Your task to perform on an android device: change your default location settings in chrome Image 0: 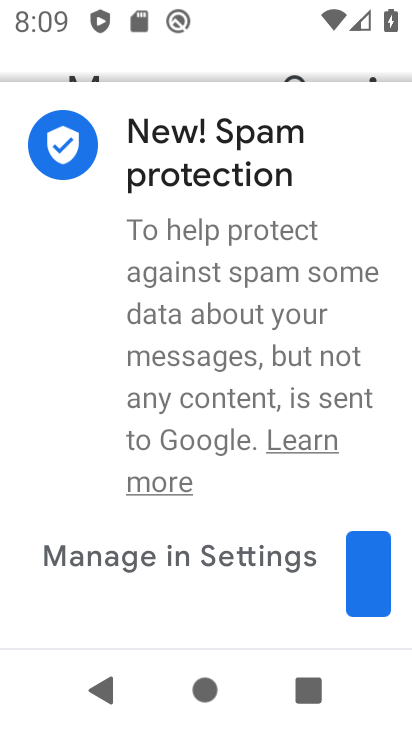
Step 0: press home button
Your task to perform on an android device: change your default location settings in chrome Image 1: 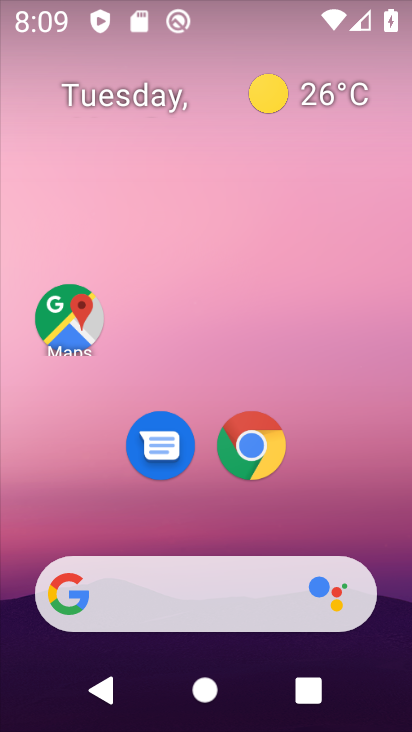
Step 1: click (252, 444)
Your task to perform on an android device: change your default location settings in chrome Image 2: 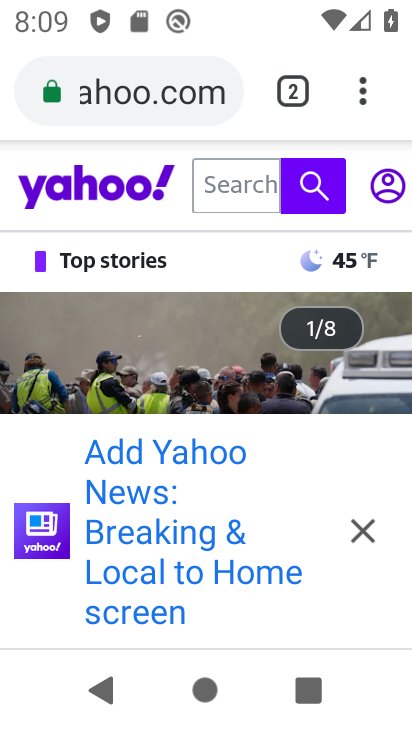
Step 2: click (368, 89)
Your task to perform on an android device: change your default location settings in chrome Image 3: 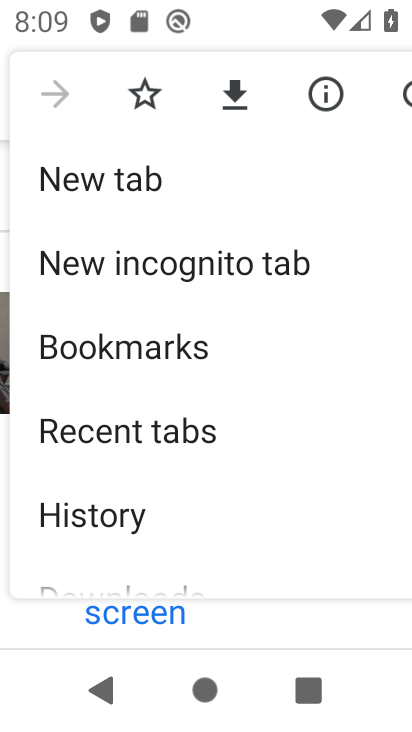
Step 3: drag from (141, 455) to (194, 370)
Your task to perform on an android device: change your default location settings in chrome Image 4: 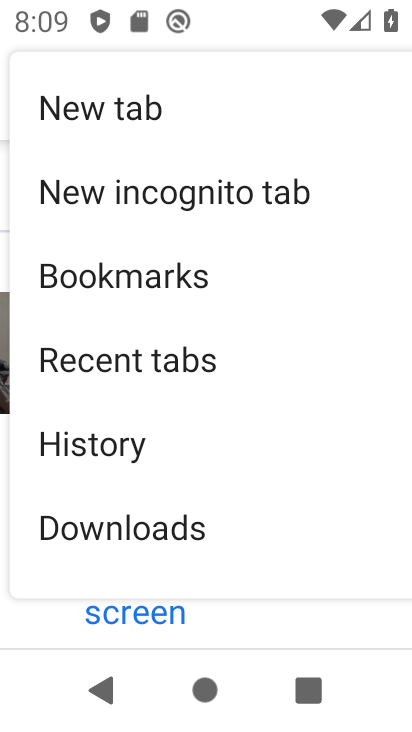
Step 4: drag from (130, 473) to (195, 379)
Your task to perform on an android device: change your default location settings in chrome Image 5: 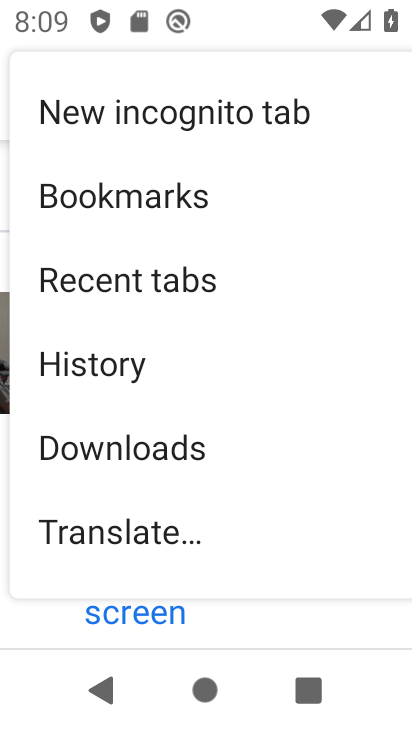
Step 5: drag from (118, 474) to (187, 391)
Your task to perform on an android device: change your default location settings in chrome Image 6: 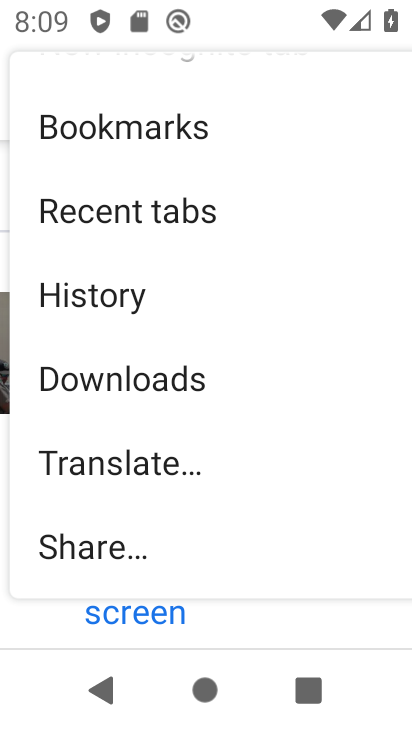
Step 6: drag from (95, 494) to (178, 403)
Your task to perform on an android device: change your default location settings in chrome Image 7: 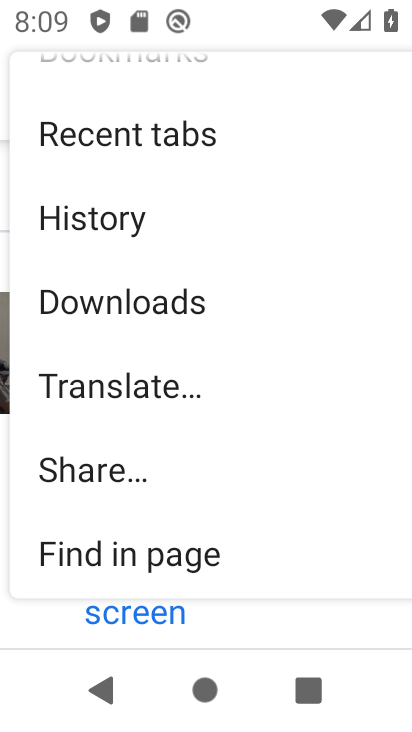
Step 7: drag from (73, 501) to (145, 417)
Your task to perform on an android device: change your default location settings in chrome Image 8: 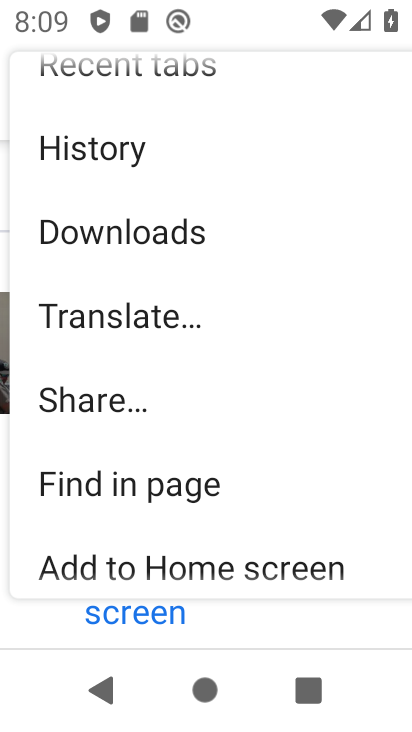
Step 8: drag from (82, 511) to (189, 396)
Your task to perform on an android device: change your default location settings in chrome Image 9: 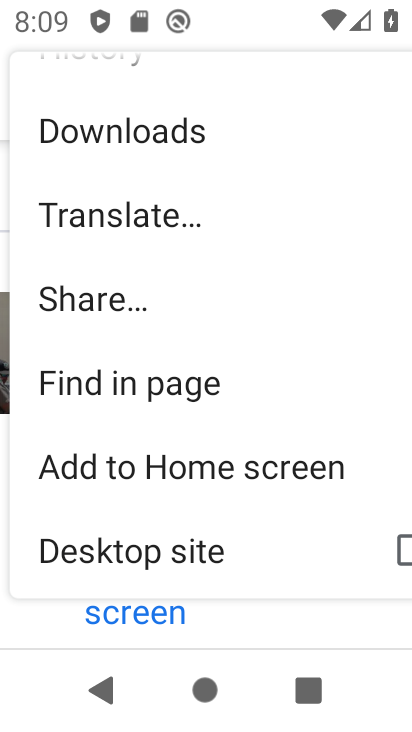
Step 9: drag from (94, 504) to (200, 400)
Your task to perform on an android device: change your default location settings in chrome Image 10: 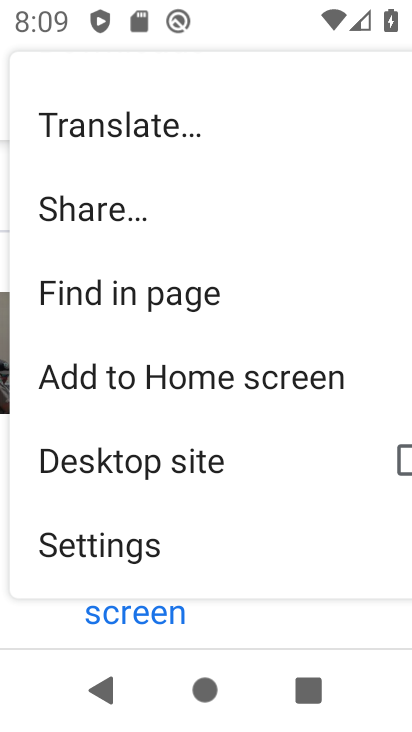
Step 10: drag from (88, 497) to (196, 385)
Your task to perform on an android device: change your default location settings in chrome Image 11: 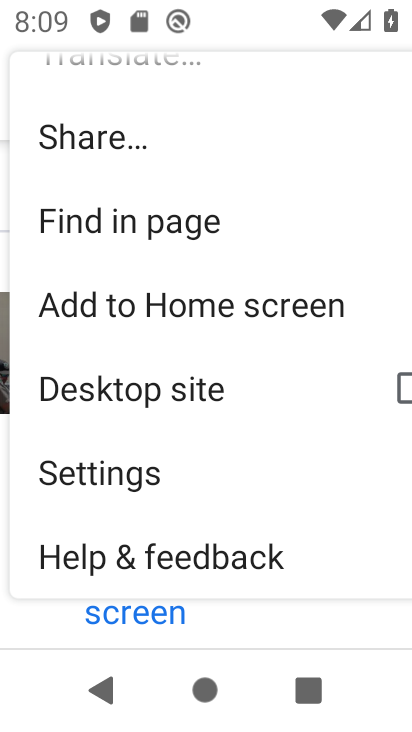
Step 11: click (107, 473)
Your task to perform on an android device: change your default location settings in chrome Image 12: 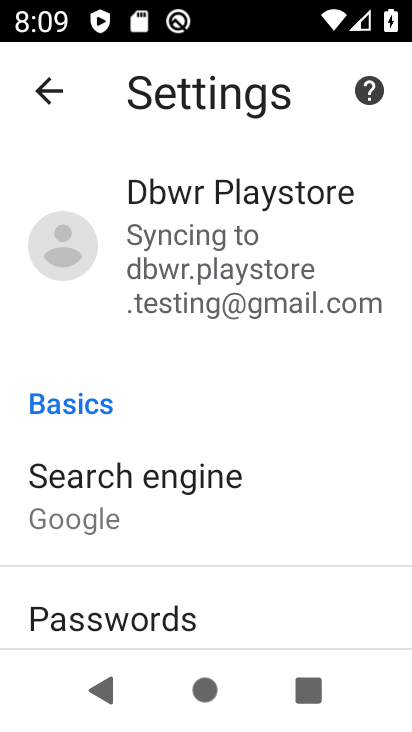
Step 12: drag from (200, 543) to (279, 439)
Your task to perform on an android device: change your default location settings in chrome Image 13: 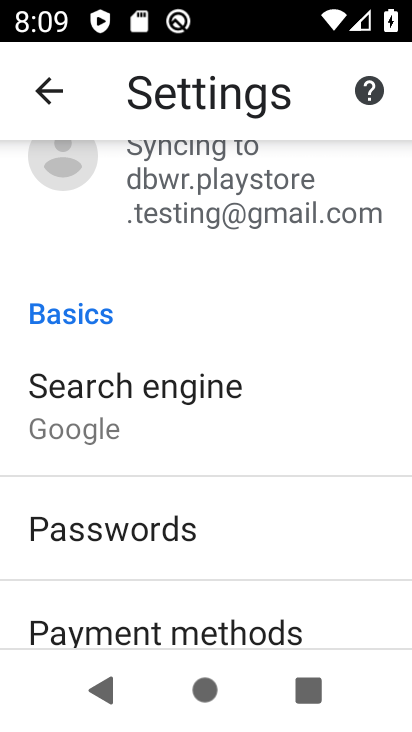
Step 13: drag from (152, 556) to (276, 431)
Your task to perform on an android device: change your default location settings in chrome Image 14: 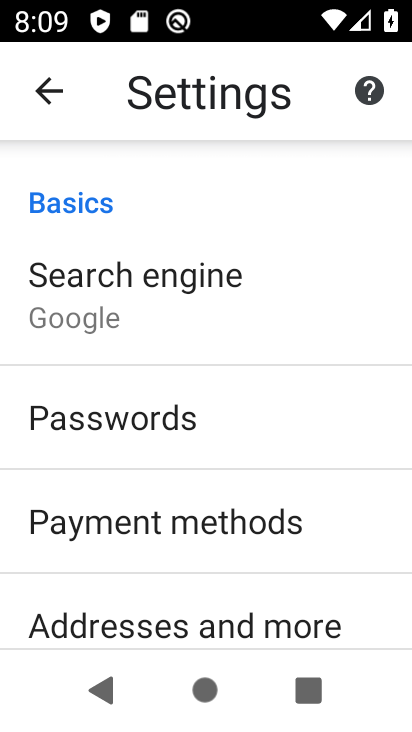
Step 14: drag from (154, 544) to (259, 426)
Your task to perform on an android device: change your default location settings in chrome Image 15: 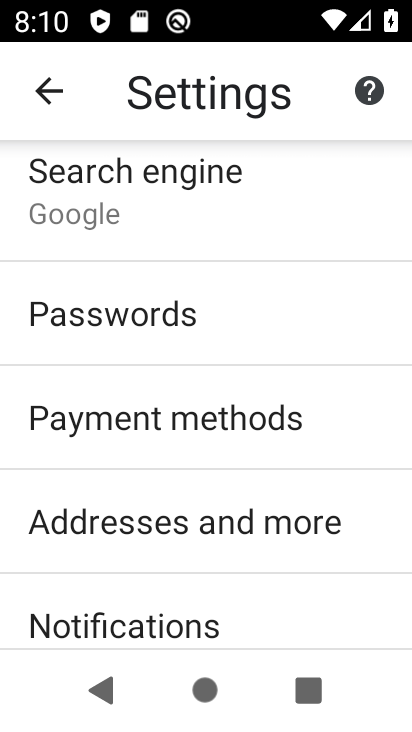
Step 15: drag from (156, 547) to (252, 447)
Your task to perform on an android device: change your default location settings in chrome Image 16: 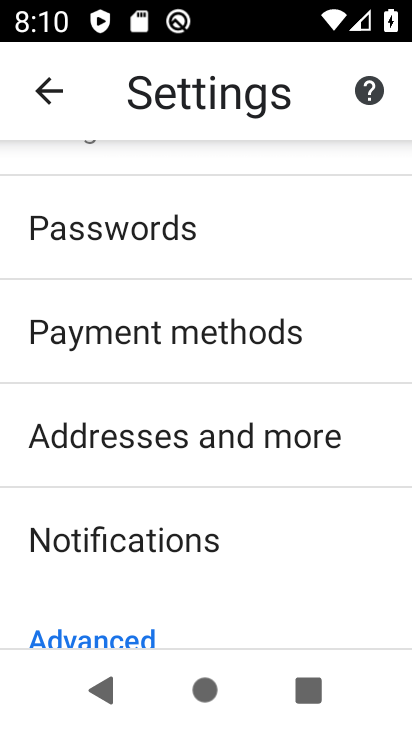
Step 16: drag from (174, 571) to (260, 476)
Your task to perform on an android device: change your default location settings in chrome Image 17: 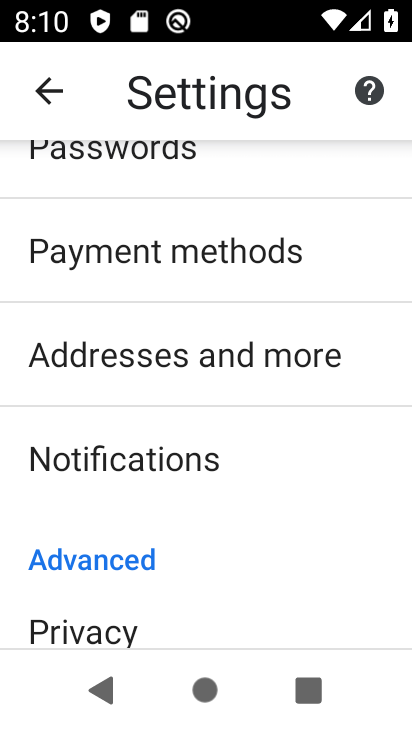
Step 17: drag from (185, 573) to (282, 471)
Your task to perform on an android device: change your default location settings in chrome Image 18: 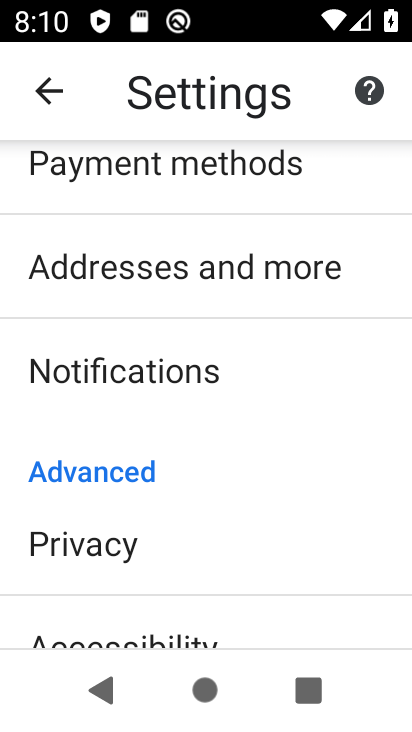
Step 18: drag from (183, 582) to (266, 485)
Your task to perform on an android device: change your default location settings in chrome Image 19: 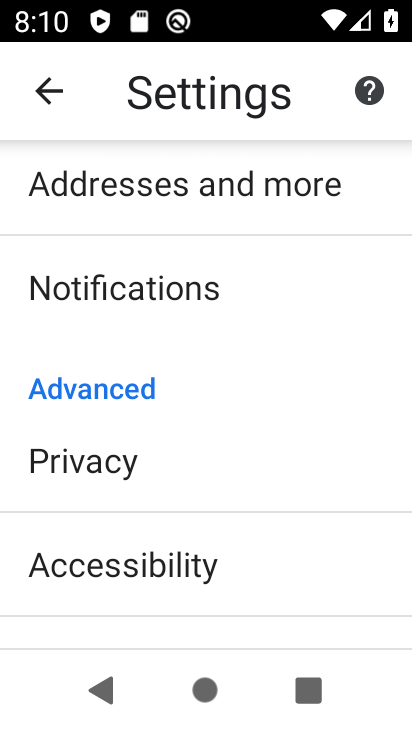
Step 19: drag from (192, 529) to (270, 438)
Your task to perform on an android device: change your default location settings in chrome Image 20: 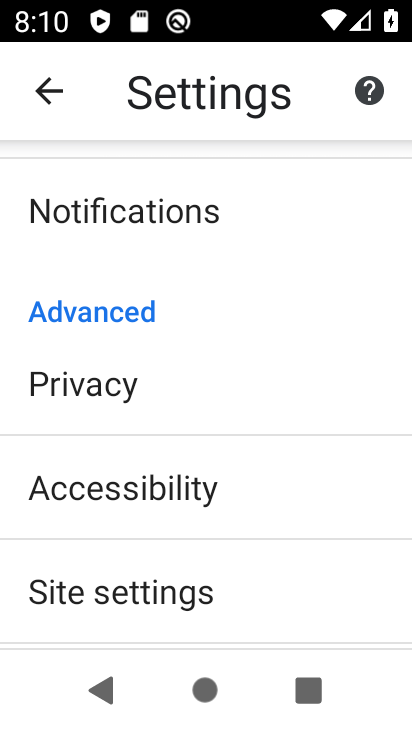
Step 20: drag from (170, 553) to (267, 440)
Your task to perform on an android device: change your default location settings in chrome Image 21: 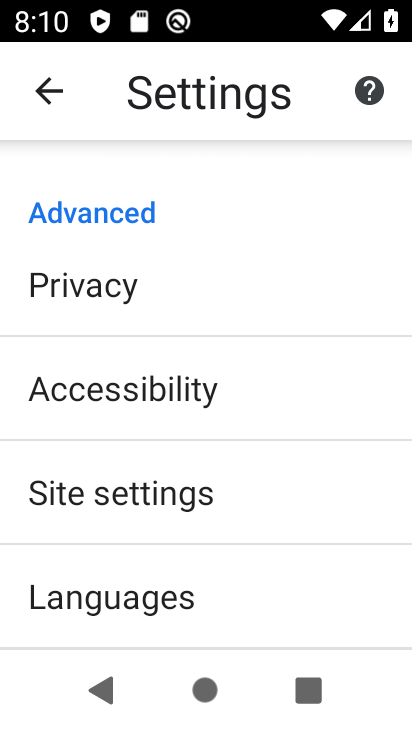
Step 21: click (171, 491)
Your task to perform on an android device: change your default location settings in chrome Image 22: 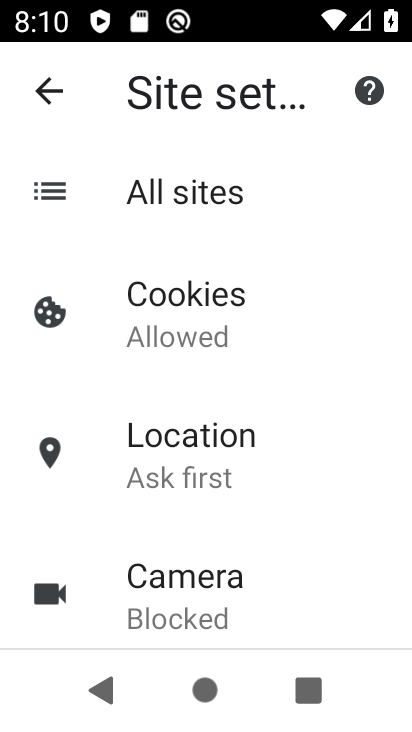
Step 22: drag from (229, 524) to (298, 439)
Your task to perform on an android device: change your default location settings in chrome Image 23: 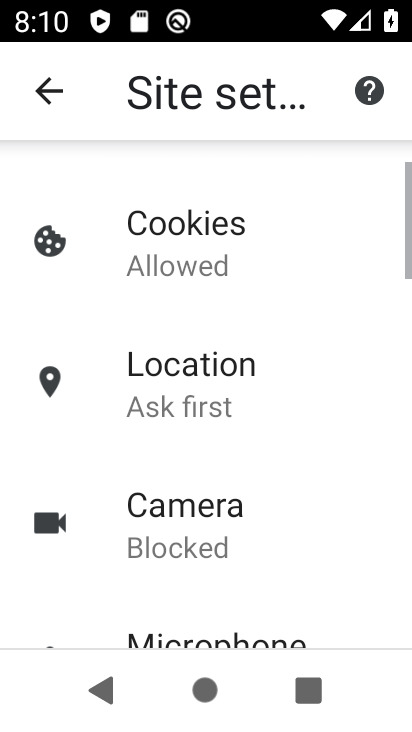
Step 23: drag from (270, 535) to (296, 502)
Your task to perform on an android device: change your default location settings in chrome Image 24: 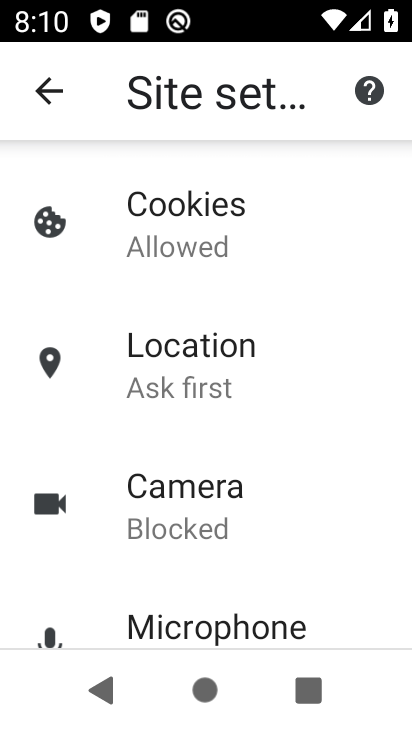
Step 24: drag from (187, 570) to (261, 444)
Your task to perform on an android device: change your default location settings in chrome Image 25: 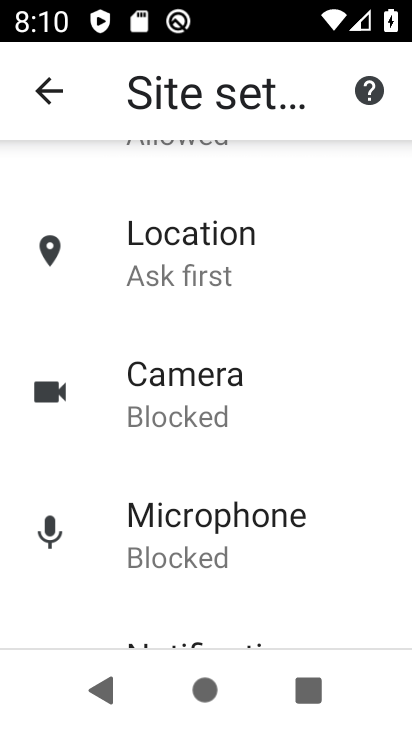
Step 25: drag from (193, 584) to (293, 465)
Your task to perform on an android device: change your default location settings in chrome Image 26: 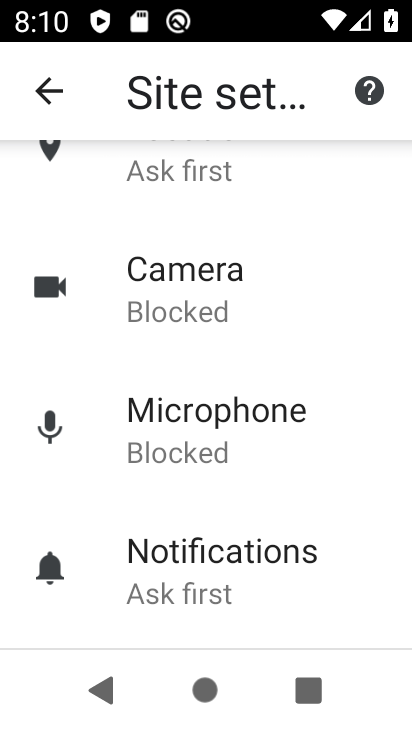
Step 26: drag from (232, 239) to (236, 329)
Your task to perform on an android device: change your default location settings in chrome Image 27: 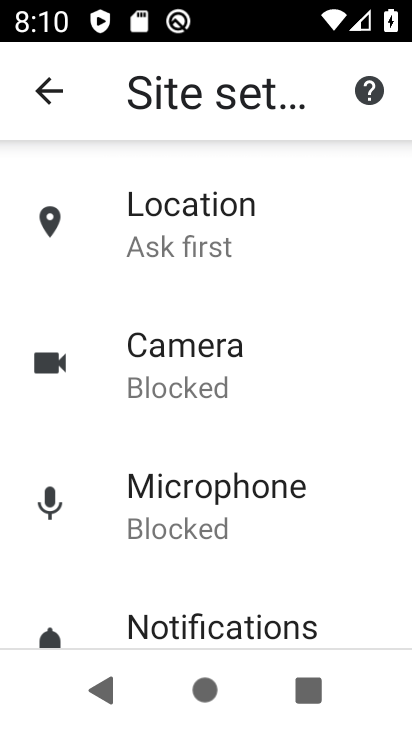
Step 27: click (216, 227)
Your task to perform on an android device: change your default location settings in chrome Image 28: 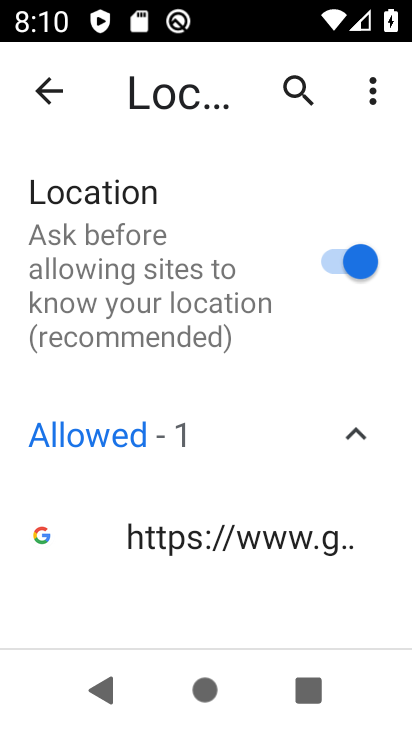
Step 28: click (348, 264)
Your task to perform on an android device: change your default location settings in chrome Image 29: 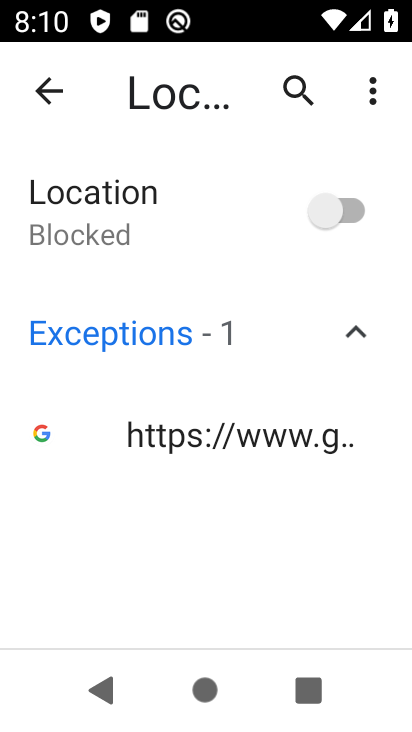
Step 29: task complete